Your task to perform on an android device: move an email to a new category in the gmail app Image 0: 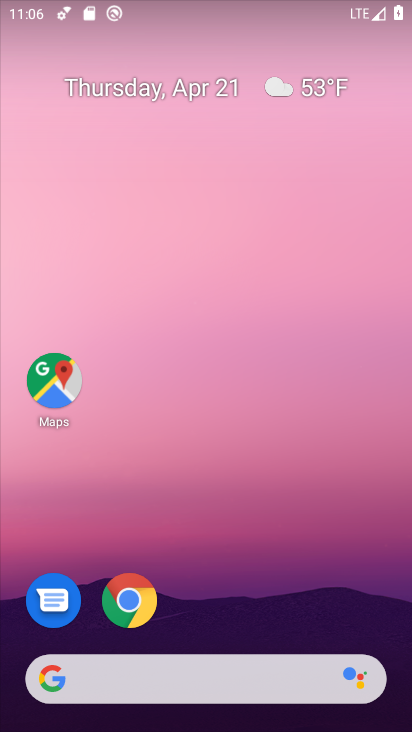
Step 0: drag from (251, 553) to (198, 67)
Your task to perform on an android device: move an email to a new category in the gmail app Image 1: 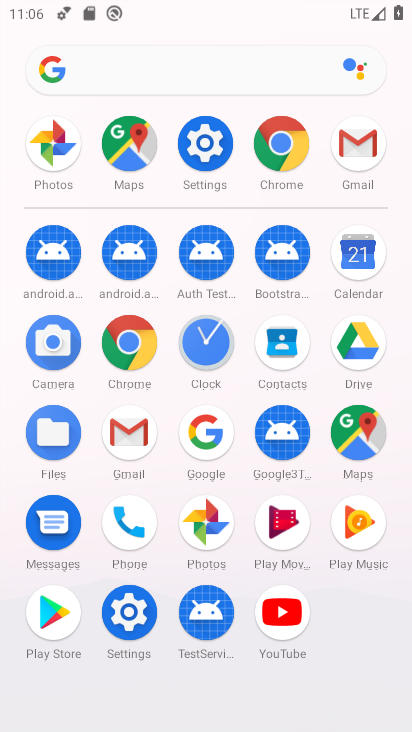
Step 1: click (134, 437)
Your task to perform on an android device: move an email to a new category in the gmail app Image 2: 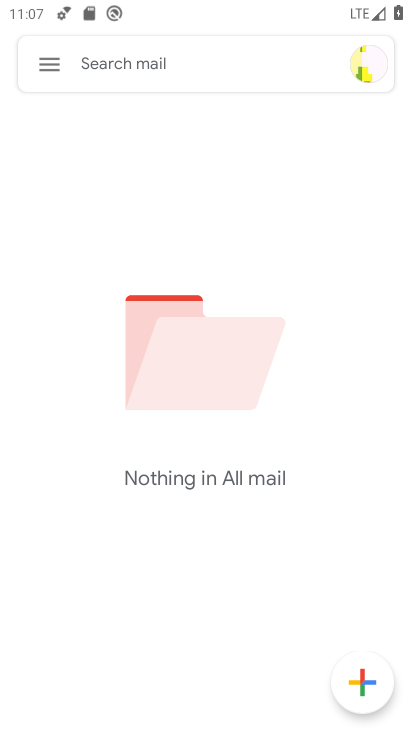
Step 2: click (46, 69)
Your task to perform on an android device: move an email to a new category in the gmail app Image 3: 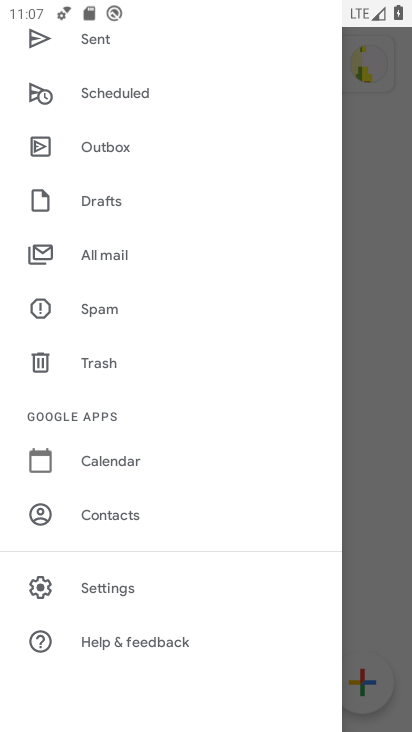
Step 3: click (132, 267)
Your task to perform on an android device: move an email to a new category in the gmail app Image 4: 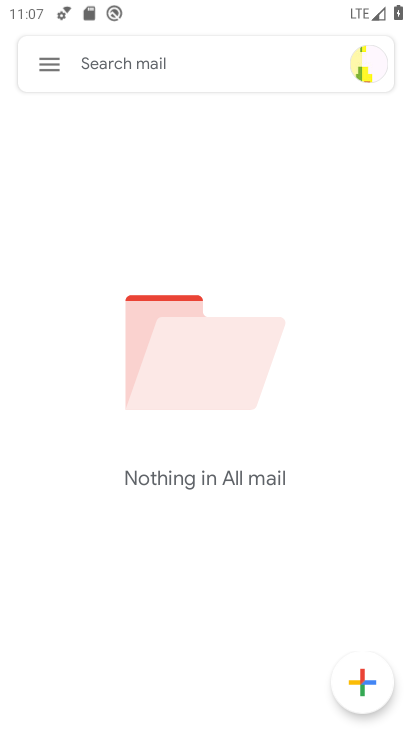
Step 4: task complete